Your task to perform on an android device: search for starred emails in the gmail app Image 0: 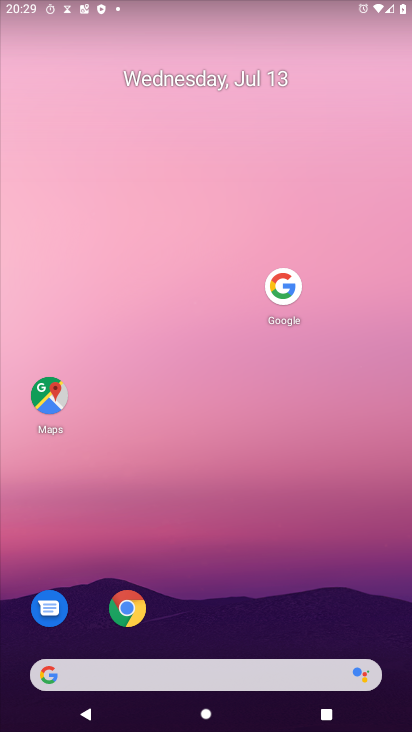
Step 0: drag from (186, 638) to (178, 13)
Your task to perform on an android device: search for starred emails in the gmail app Image 1: 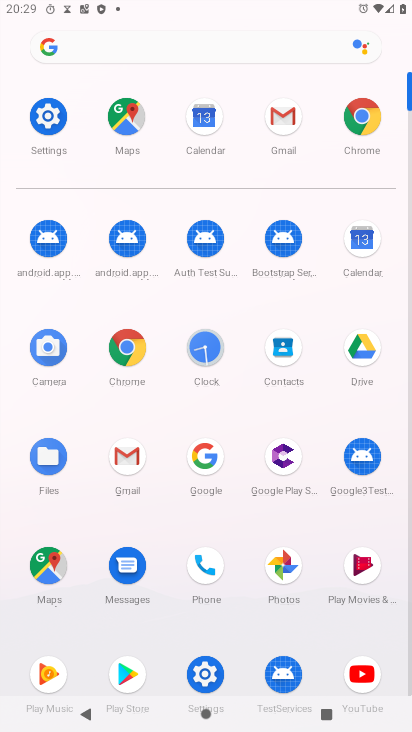
Step 1: click (280, 111)
Your task to perform on an android device: search for starred emails in the gmail app Image 2: 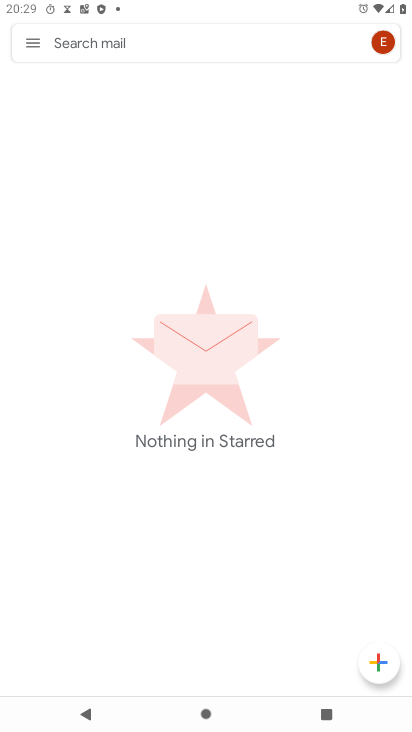
Step 2: click (26, 47)
Your task to perform on an android device: search for starred emails in the gmail app Image 3: 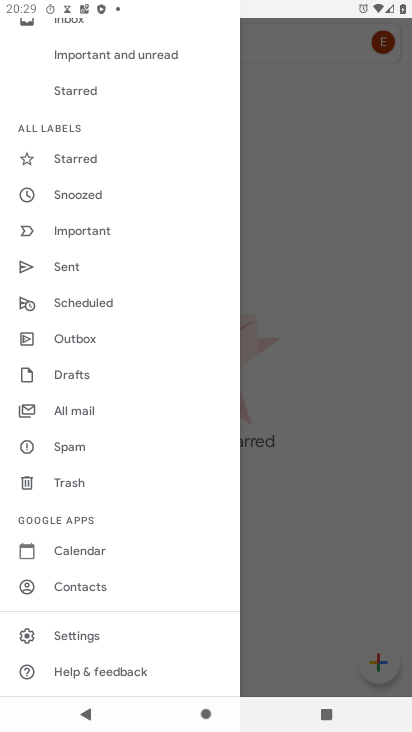
Step 3: click (66, 160)
Your task to perform on an android device: search for starred emails in the gmail app Image 4: 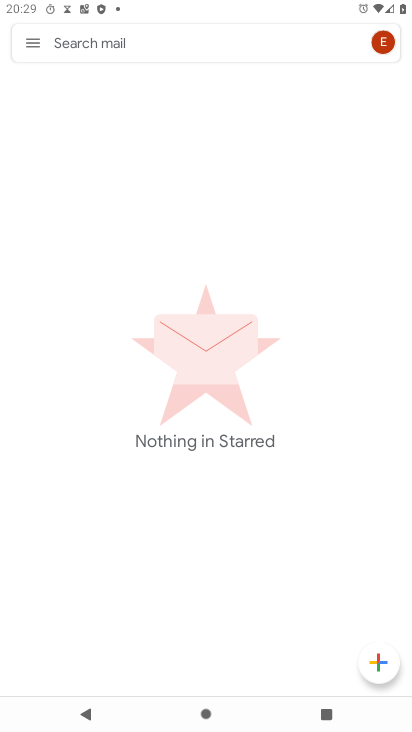
Step 4: task complete